Your task to perform on an android device: Empty the shopping cart on newegg. Add asus rog to the cart on newegg, then select checkout. Image 0: 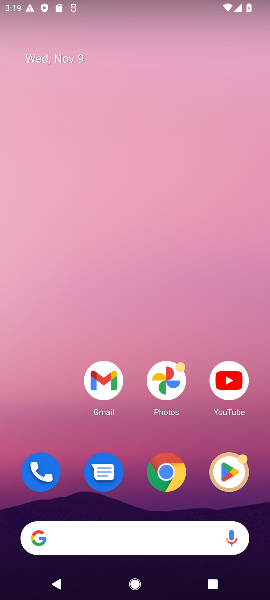
Step 0: click (112, 533)
Your task to perform on an android device: Empty the shopping cart on newegg. Add asus rog to the cart on newegg, then select checkout. Image 1: 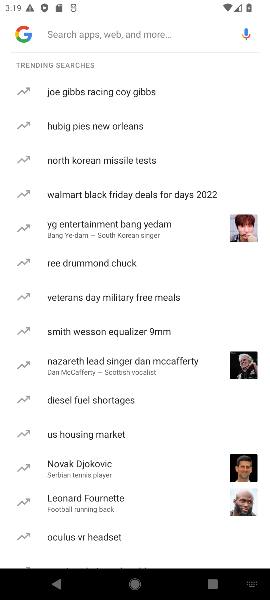
Step 1: type "newegg"
Your task to perform on an android device: Empty the shopping cart on newegg. Add asus rog to the cart on newegg, then select checkout. Image 2: 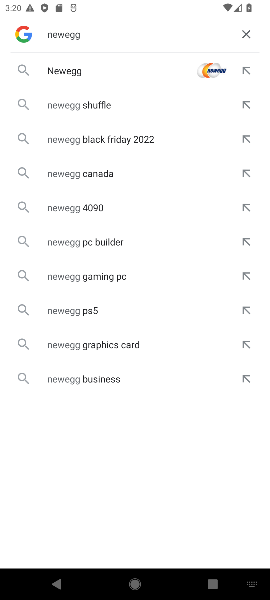
Step 2: click (68, 72)
Your task to perform on an android device: Empty the shopping cart on newegg. Add asus rog to the cart on newegg, then select checkout. Image 3: 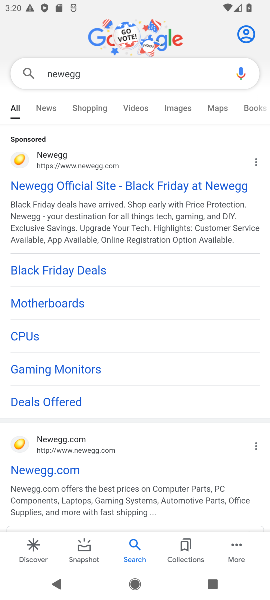
Step 3: click (53, 157)
Your task to perform on an android device: Empty the shopping cart on newegg. Add asus rog to the cart on newegg, then select checkout. Image 4: 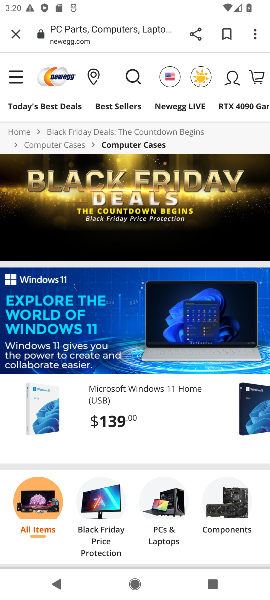
Step 4: click (258, 79)
Your task to perform on an android device: Empty the shopping cart on newegg. Add asus rog to the cart on newegg, then select checkout. Image 5: 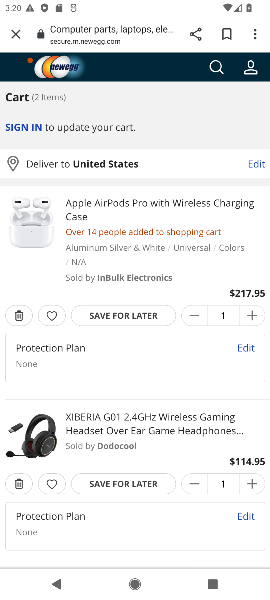
Step 5: click (13, 314)
Your task to perform on an android device: Empty the shopping cart on newegg. Add asus rog to the cart on newegg, then select checkout. Image 6: 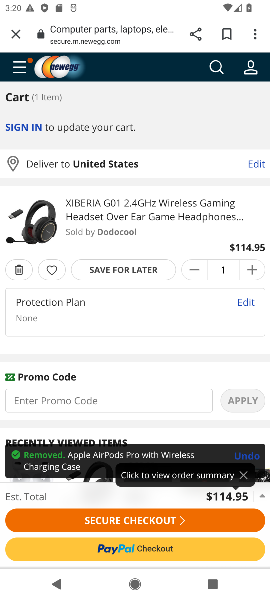
Step 6: click (20, 270)
Your task to perform on an android device: Empty the shopping cart on newegg. Add asus rog to the cart on newegg, then select checkout. Image 7: 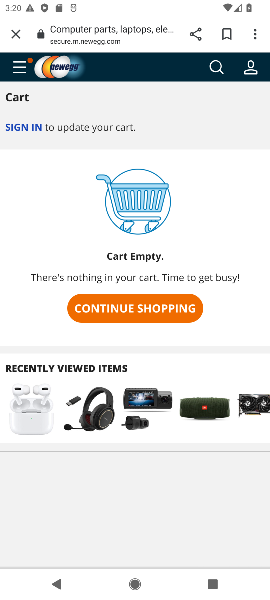
Step 7: click (213, 68)
Your task to perform on an android device: Empty the shopping cart on newegg. Add asus rog to the cart on newegg, then select checkout. Image 8: 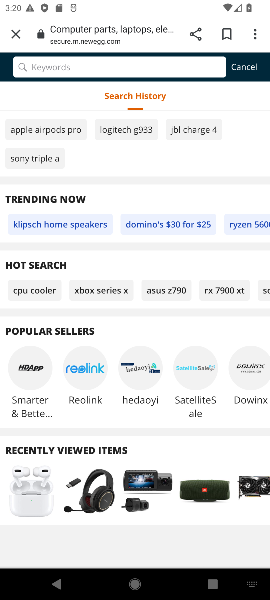
Step 8: type "asus rog"
Your task to perform on an android device: Empty the shopping cart on newegg. Add asus rog to the cart on newegg, then select checkout. Image 9: 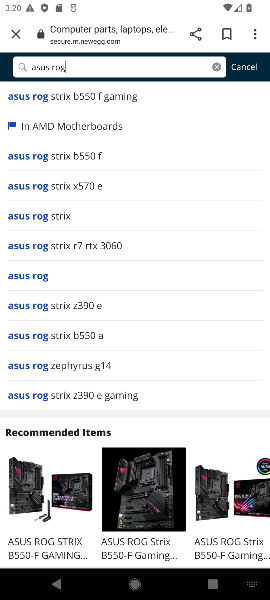
Step 9: click (16, 275)
Your task to perform on an android device: Empty the shopping cart on newegg. Add asus rog to the cart on newegg, then select checkout. Image 10: 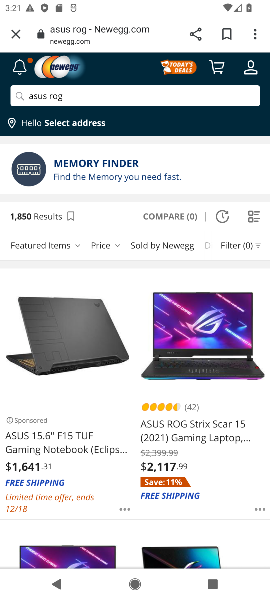
Step 10: click (73, 436)
Your task to perform on an android device: Empty the shopping cart on newegg. Add asus rog to the cart on newegg, then select checkout. Image 11: 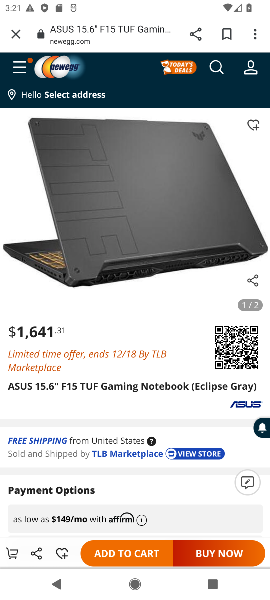
Step 11: click (110, 554)
Your task to perform on an android device: Empty the shopping cart on newegg. Add asus rog to the cart on newegg, then select checkout. Image 12: 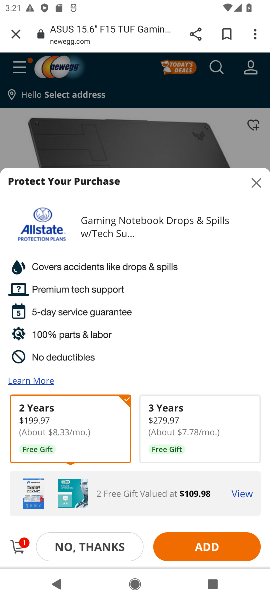
Step 12: click (255, 183)
Your task to perform on an android device: Empty the shopping cart on newegg. Add asus rog to the cart on newegg, then select checkout. Image 13: 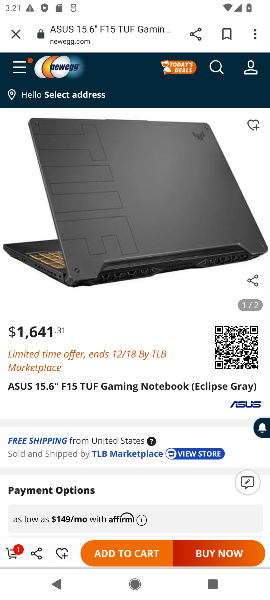
Step 13: click (15, 545)
Your task to perform on an android device: Empty the shopping cart on newegg. Add asus rog to the cart on newegg, then select checkout. Image 14: 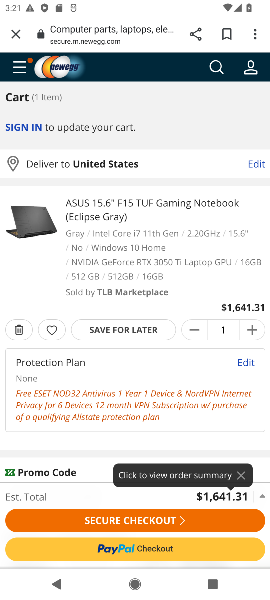
Step 14: drag from (148, 444) to (133, 354)
Your task to perform on an android device: Empty the shopping cart on newegg. Add asus rog to the cart on newegg, then select checkout. Image 15: 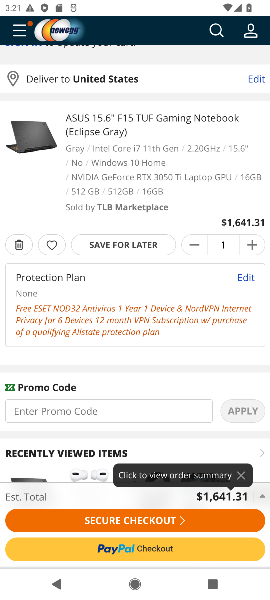
Step 15: click (149, 522)
Your task to perform on an android device: Empty the shopping cart on newegg. Add asus rog to the cart on newegg, then select checkout. Image 16: 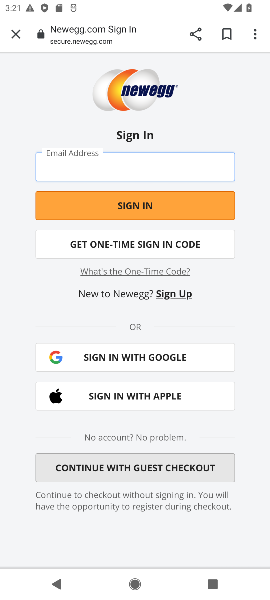
Step 16: task complete